Your task to perform on an android device: Go to Yahoo.com Image 0: 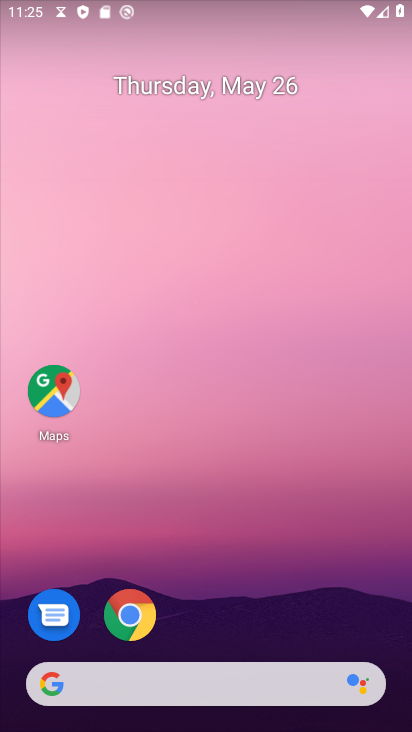
Step 0: click (134, 625)
Your task to perform on an android device: Go to Yahoo.com Image 1: 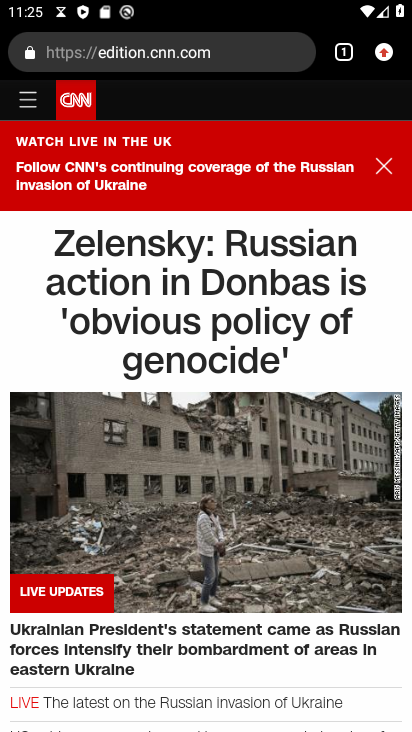
Step 1: drag from (381, 54) to (328, 158)
Your task to perform on an android device: Go to Yahoo.com Image 2: 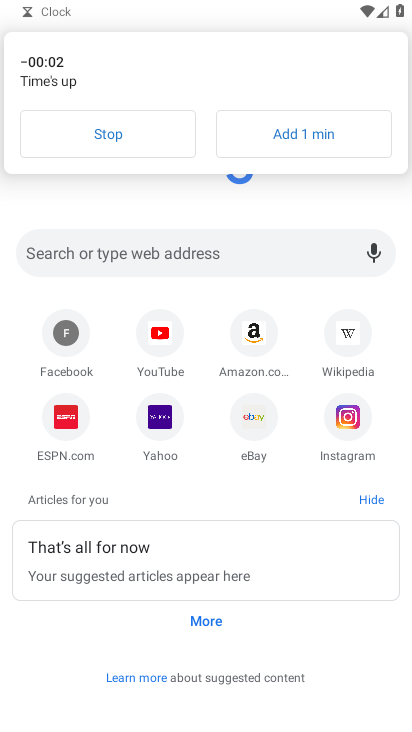
Step 2: click (170, 435)
Your task to perform on an android device: Go to Yahoo.com Image 3: 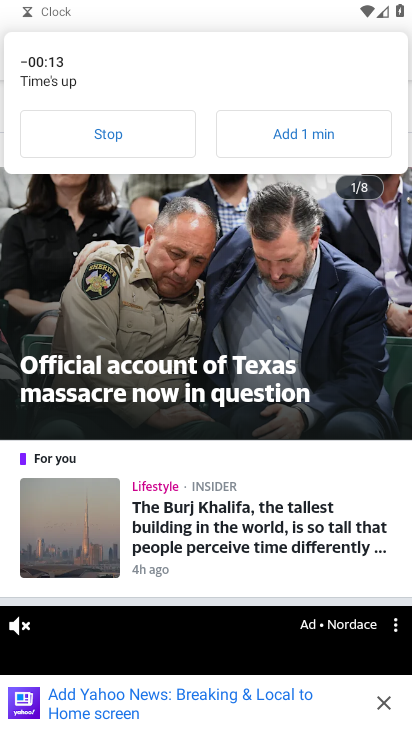
Step 3: click (161, 141)
Your task to perform on an android device: Go to Yahoo.com Image 4: 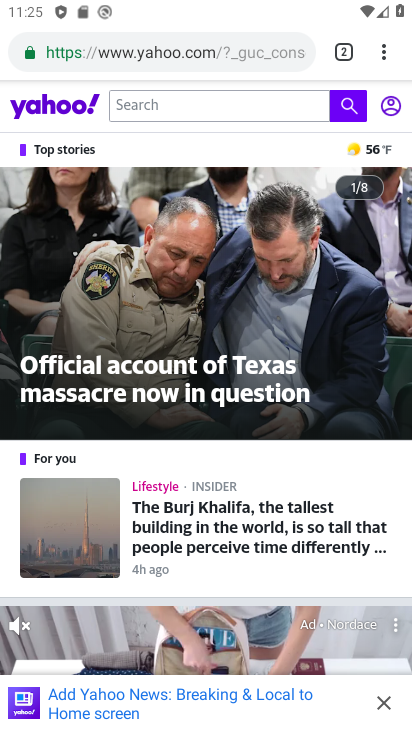
Step 4: task complete